Your task to perform on an android device: manage bookmarks in the chrome app Image 0: 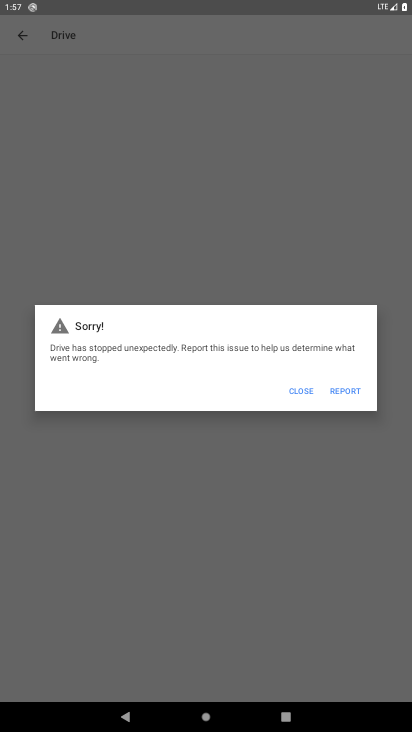
Step 0: press home button
Your task to perform on an android device: manage bookmarks in the chrome app Image 1: 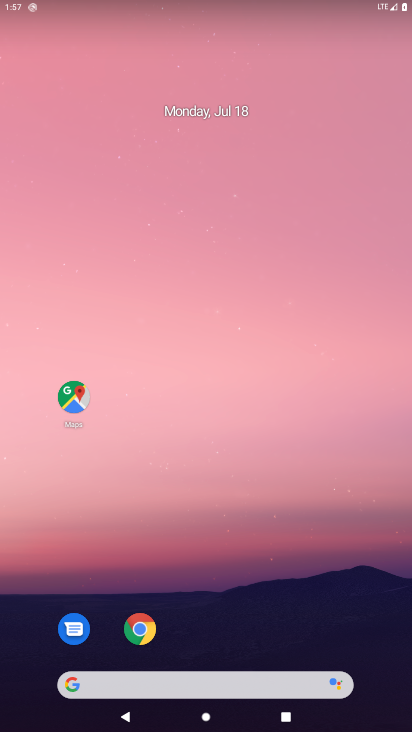
Step 1: drag from (295, 488) to (299, 278)
Your task to perform on an android device: manage bookmarks in the chrome app Image 2: 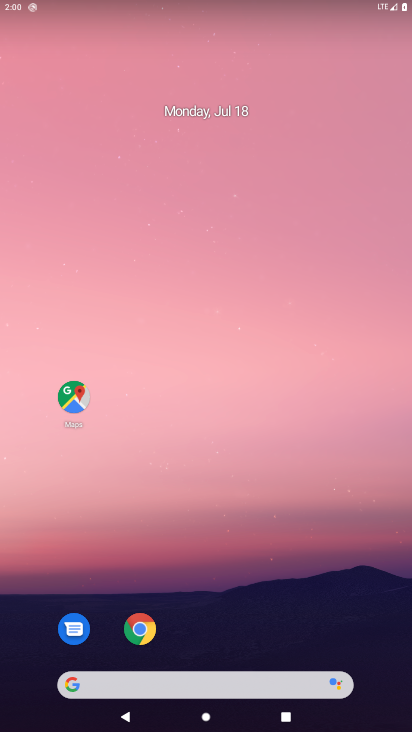
Step 2: click (261, 577)
Your task to perform on an android device: manage bookmarks in the chrome app Image 3: 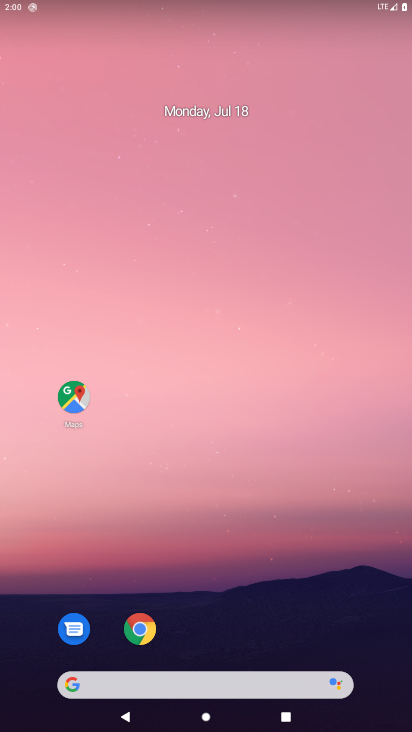
Step 3: click (139, 625)
Your task to perform on an android device: manage bookmarks in the chrome app Image 4: 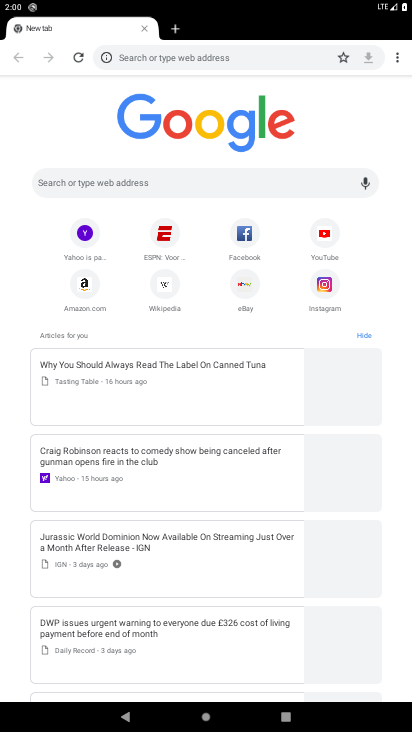
Step 4: click (396, 54)
Your task to perform on an android device: manage bookmarks in the chrome app Image 5: 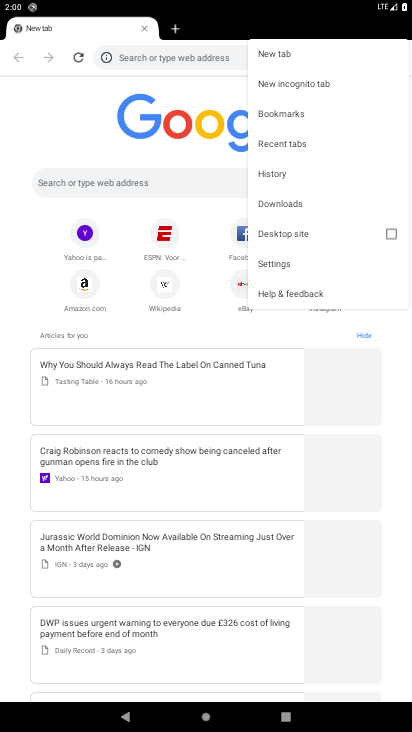
Step 5: click (307, 113)
Your task to perform on an android device: manage bookmarks in the chrome app Image 6: 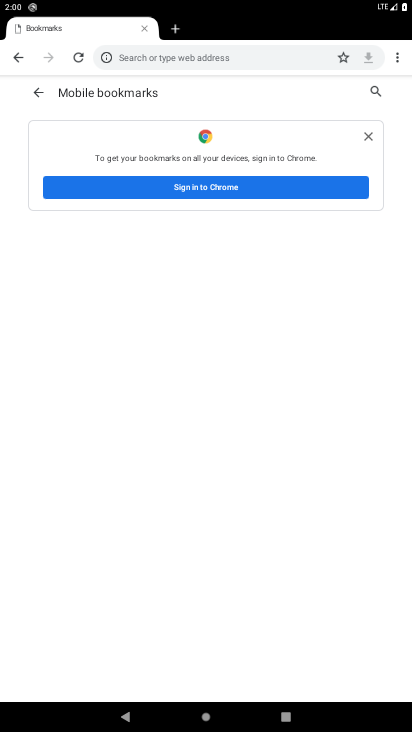
Step 6: task complete